Your task to perform on an android device: install app "Google News" Image 0: 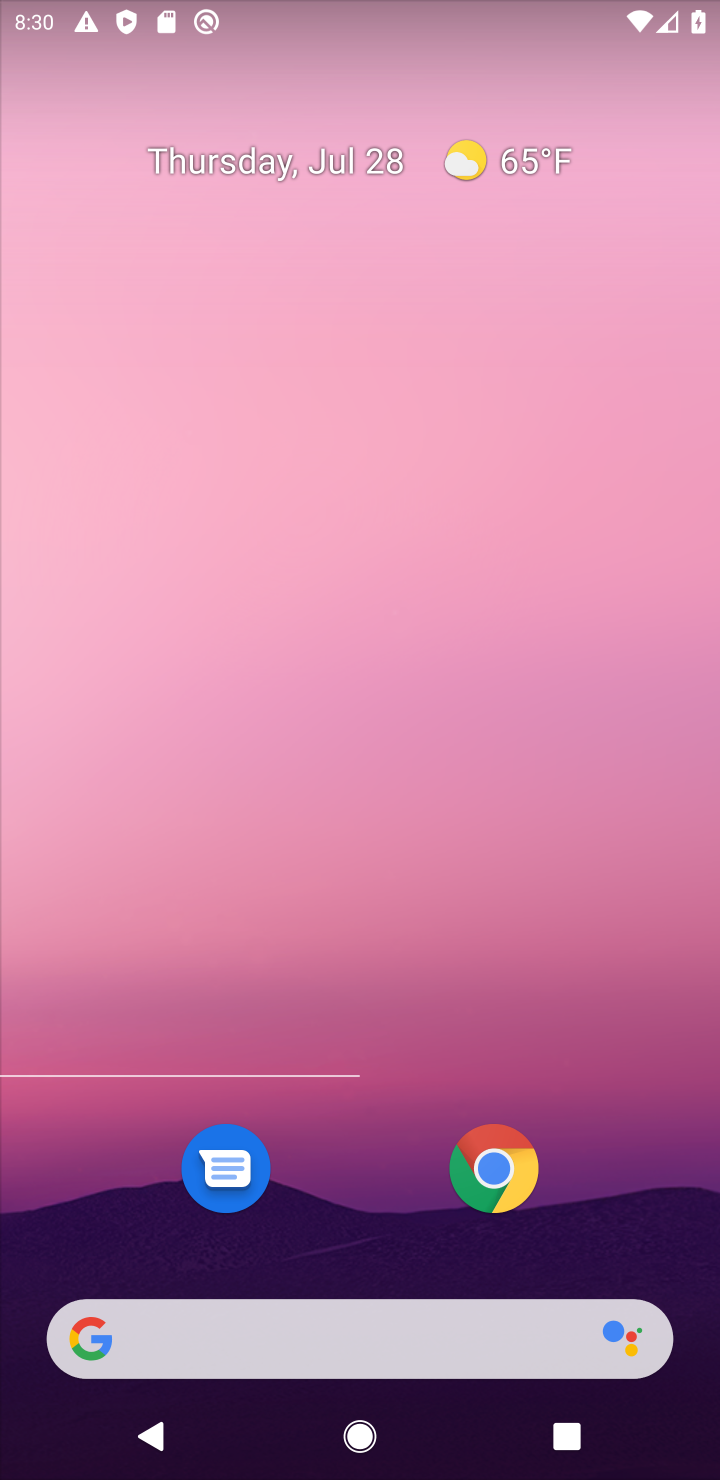
Step 0: press home button
Your task to perform on an android device: install app "Google News" Image 1: 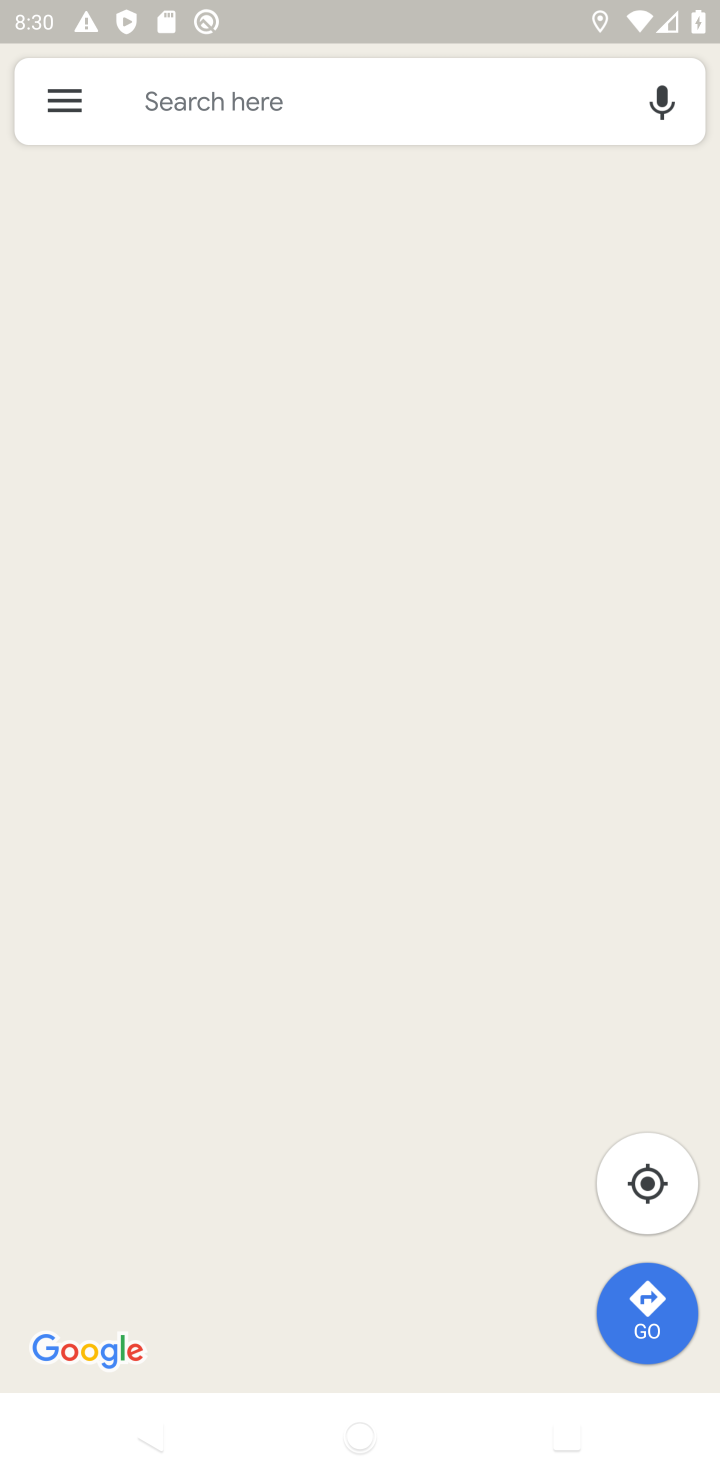
Step 1: drag from (375, 1047) to (526, 32)
Your task to perform on an android device: install app "Google News" Image 2: 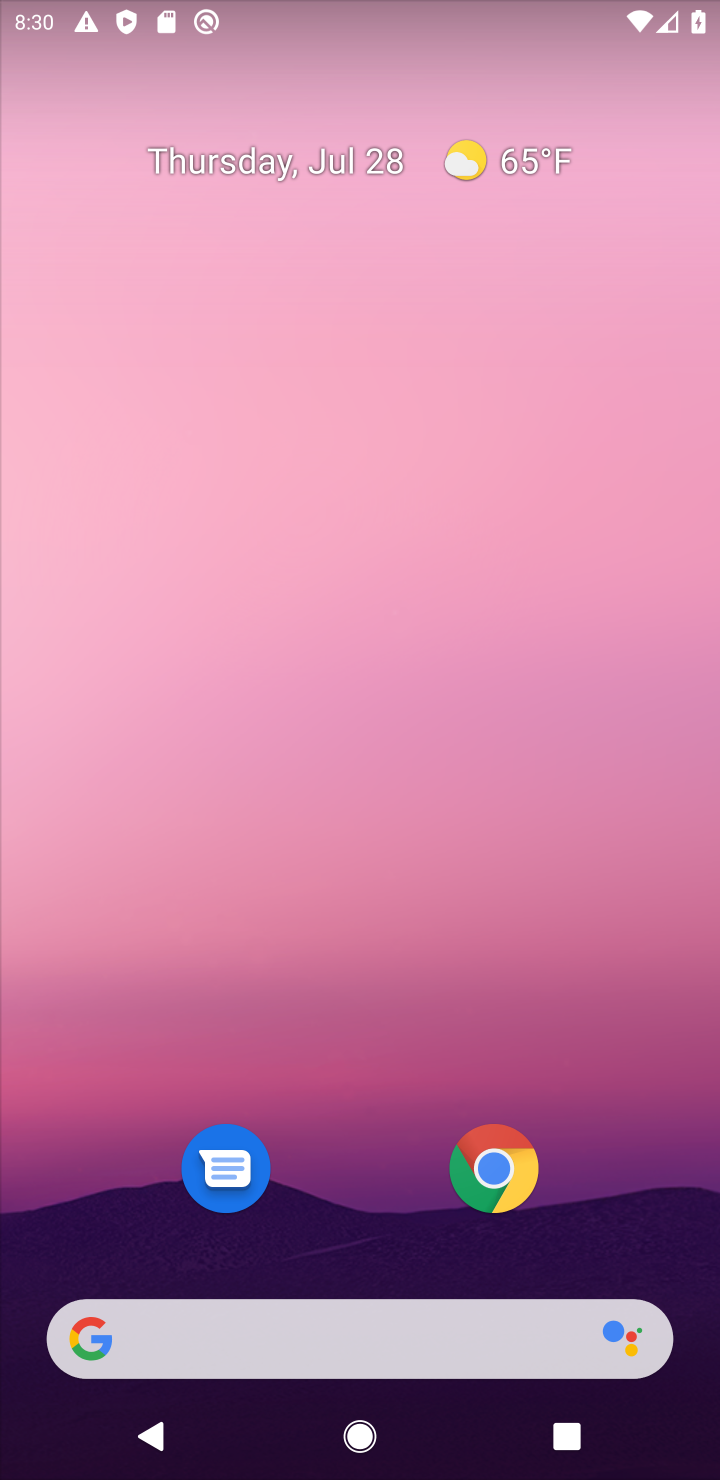
Step 2: drag from (448, 1209) to (501, 23)
Your task to perform on an android device: install app "Google News" Image 3: 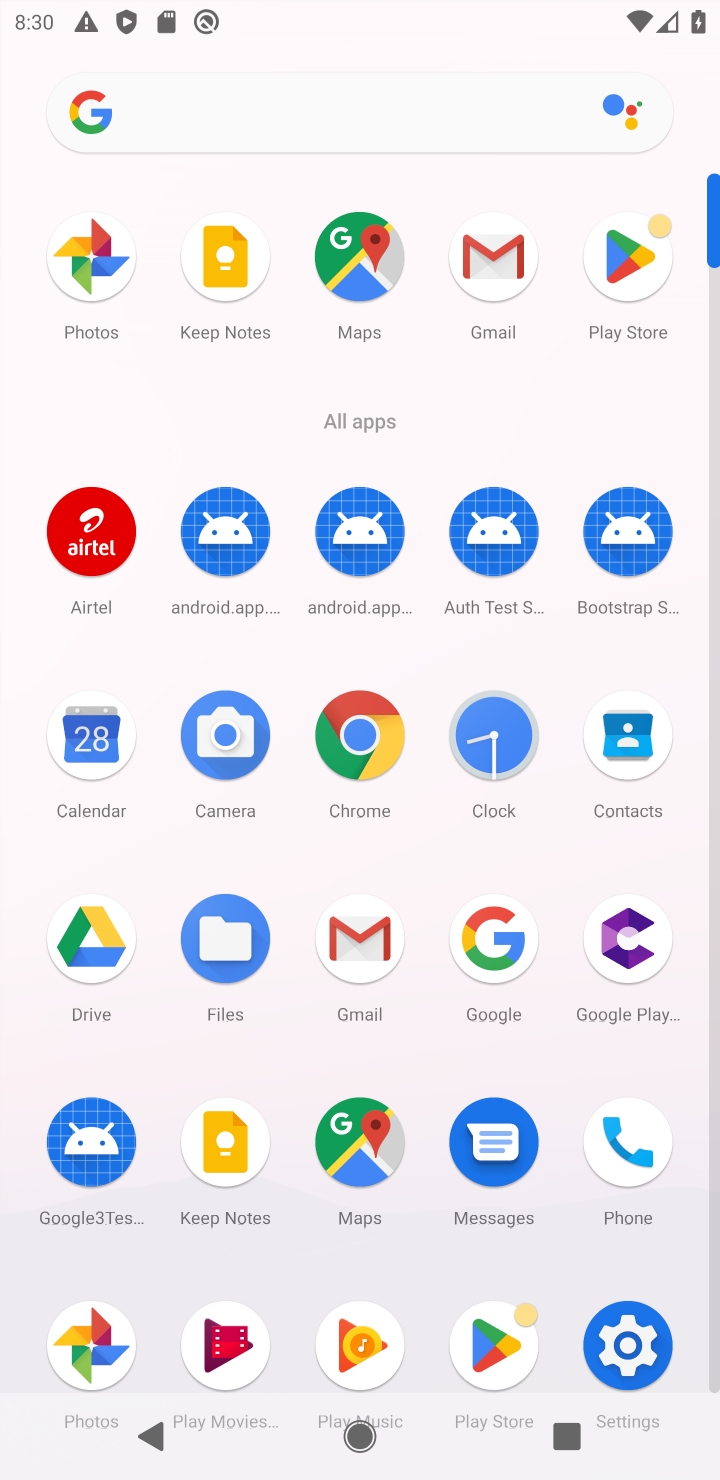
Step 3: click (604, 259)
Your task to perform on an android device: install app "Google News" Image 4: 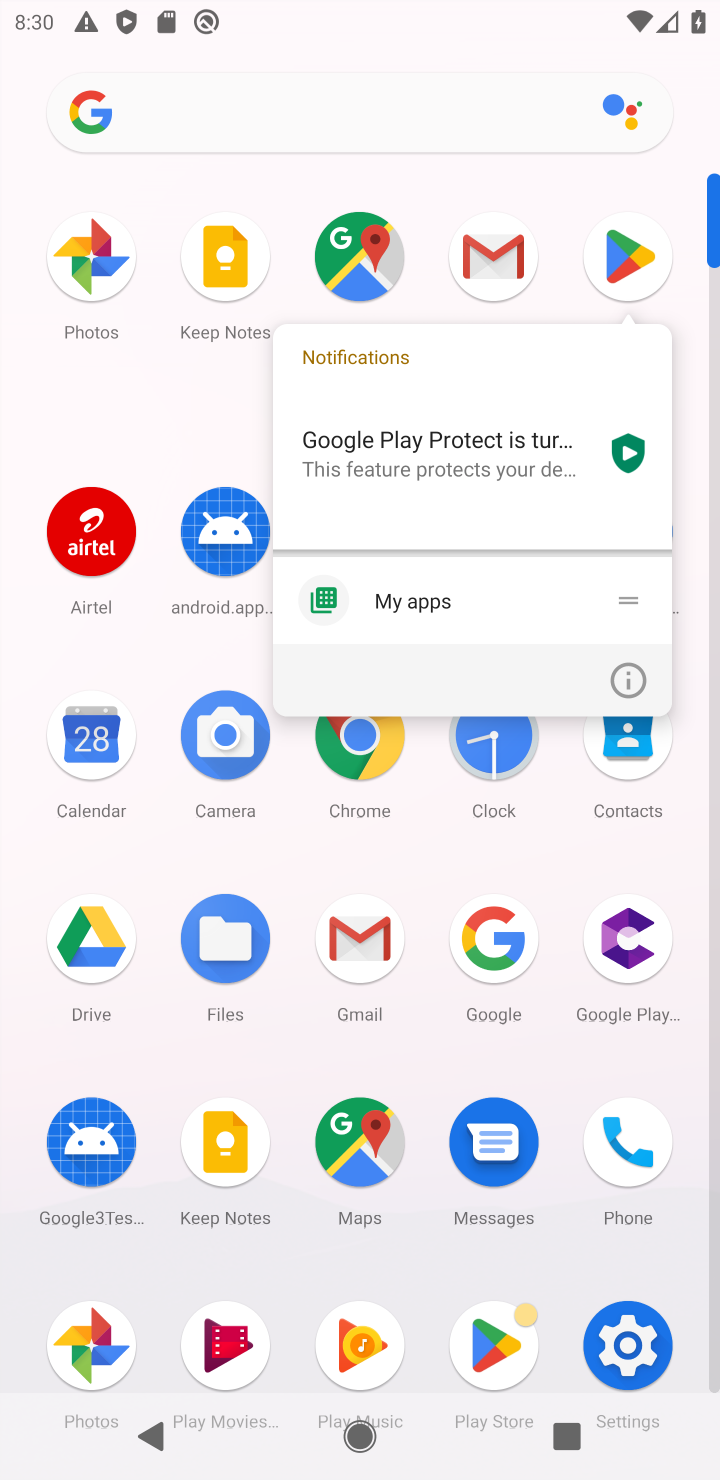
Step 4: click (604, 259)
Your task to perform on an android device: install app "Google News" Image 5: 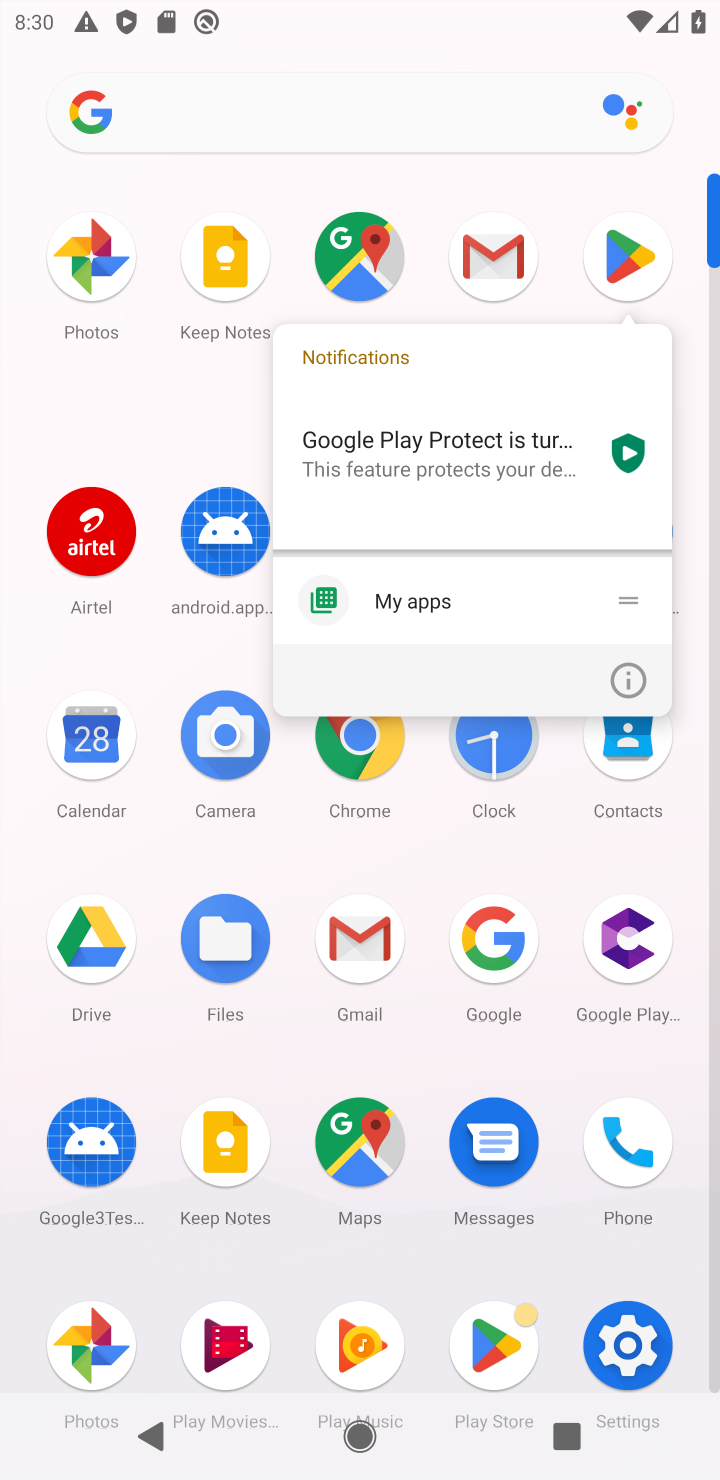
Step 5: click (624, 253)
Your task to perform on an android device: install app "Google News" Image 6: 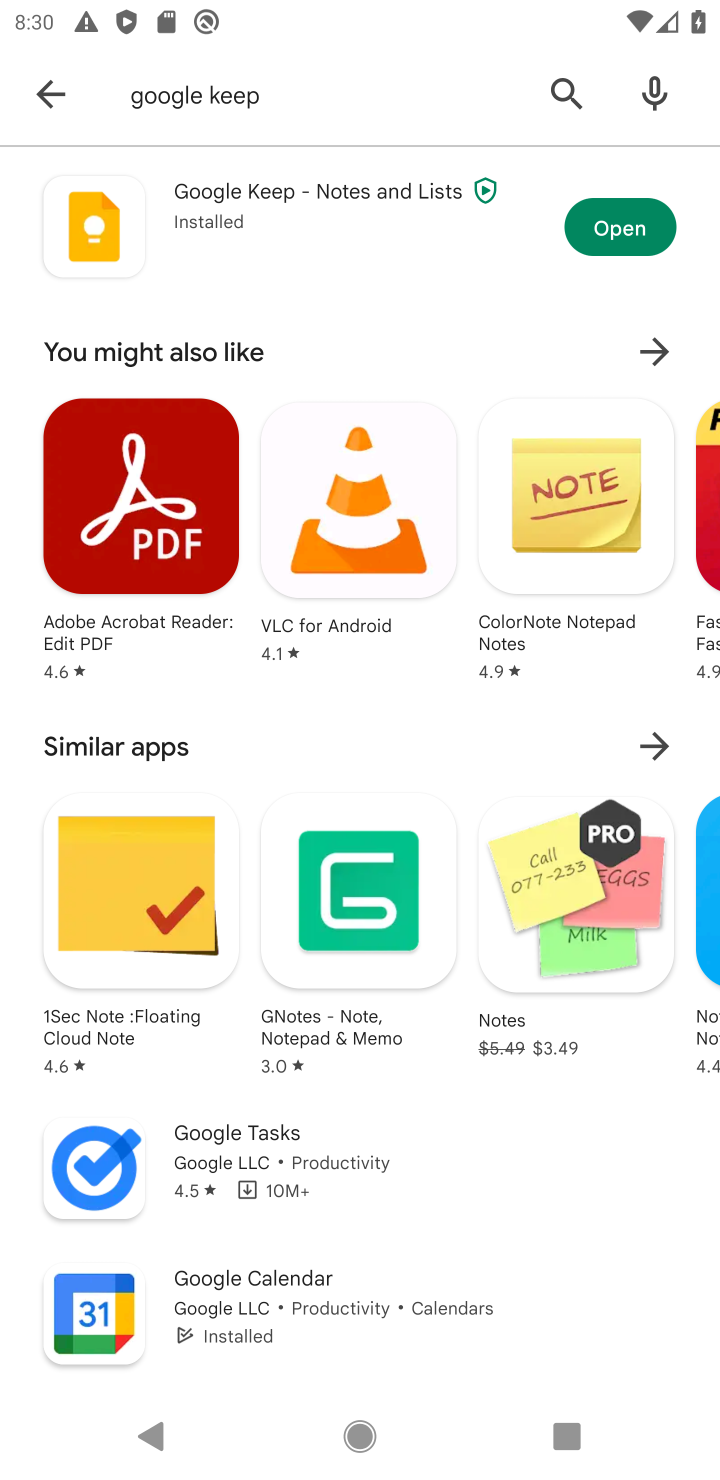
Step 6: click (557, 72)
Your task to perform on an android device: install app "Google News" Image 7: 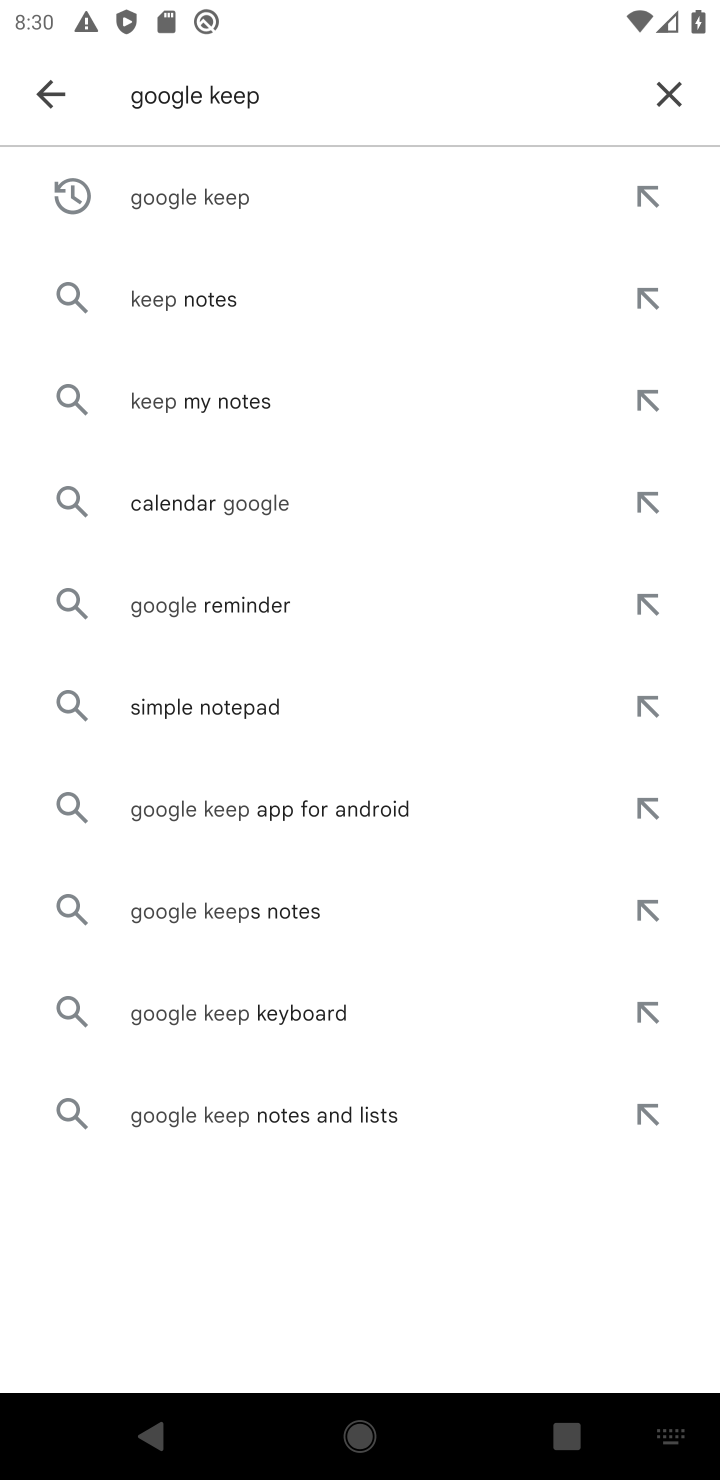
Step 7: click (656, 85)
Your task to perform on an android device: install app "Google News" Image 8: 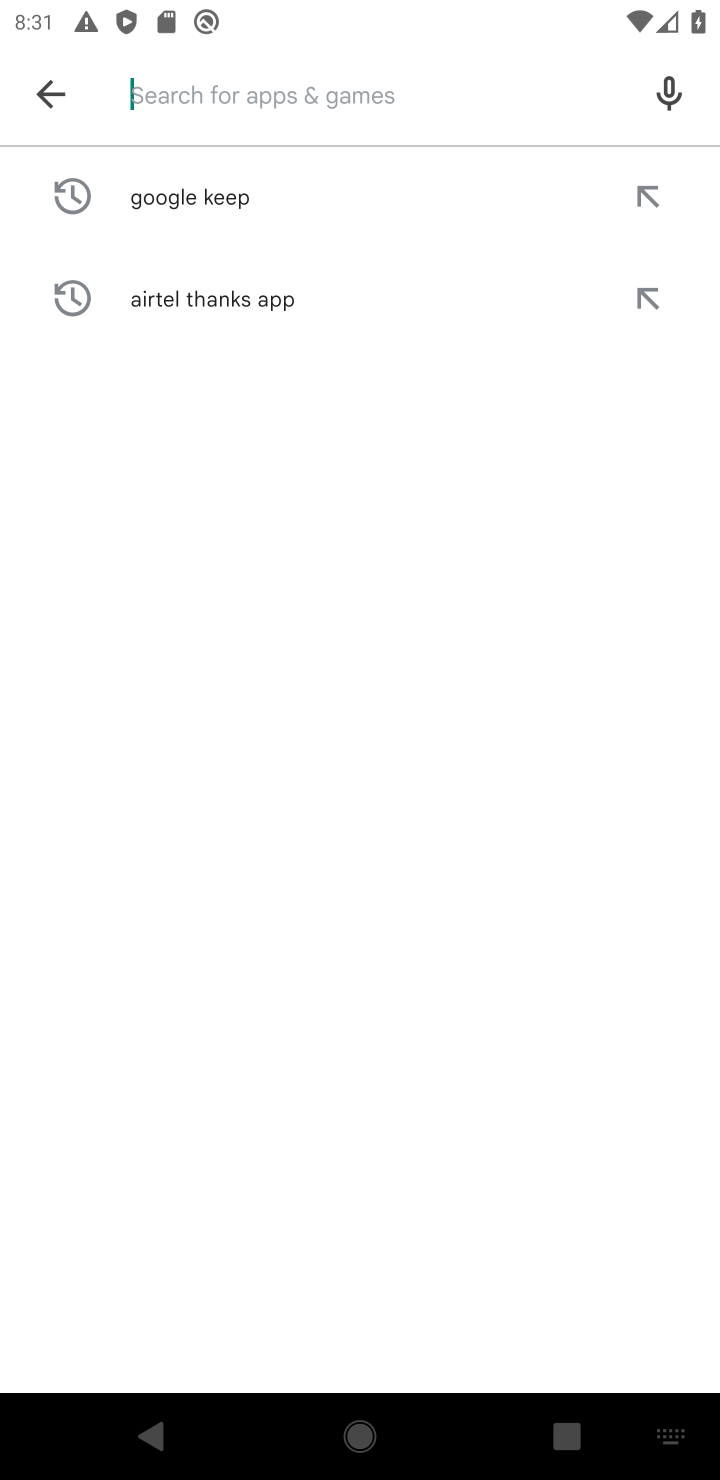
Step 8: type "google news"
Your task to perform on an android device: install app "Google News" Image 9: 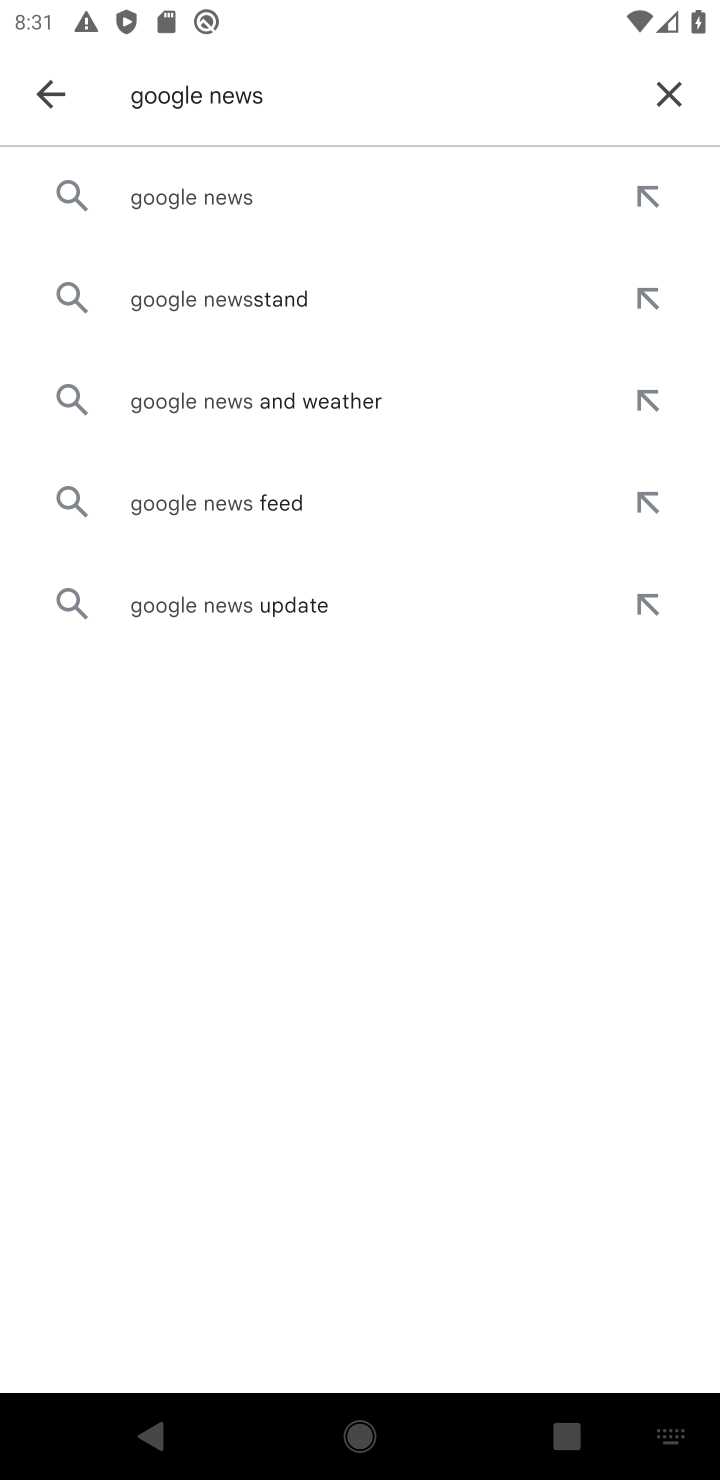
Step 9: click (295, 195)
Your task to perform on an android device: install app "Google News" Image 10: 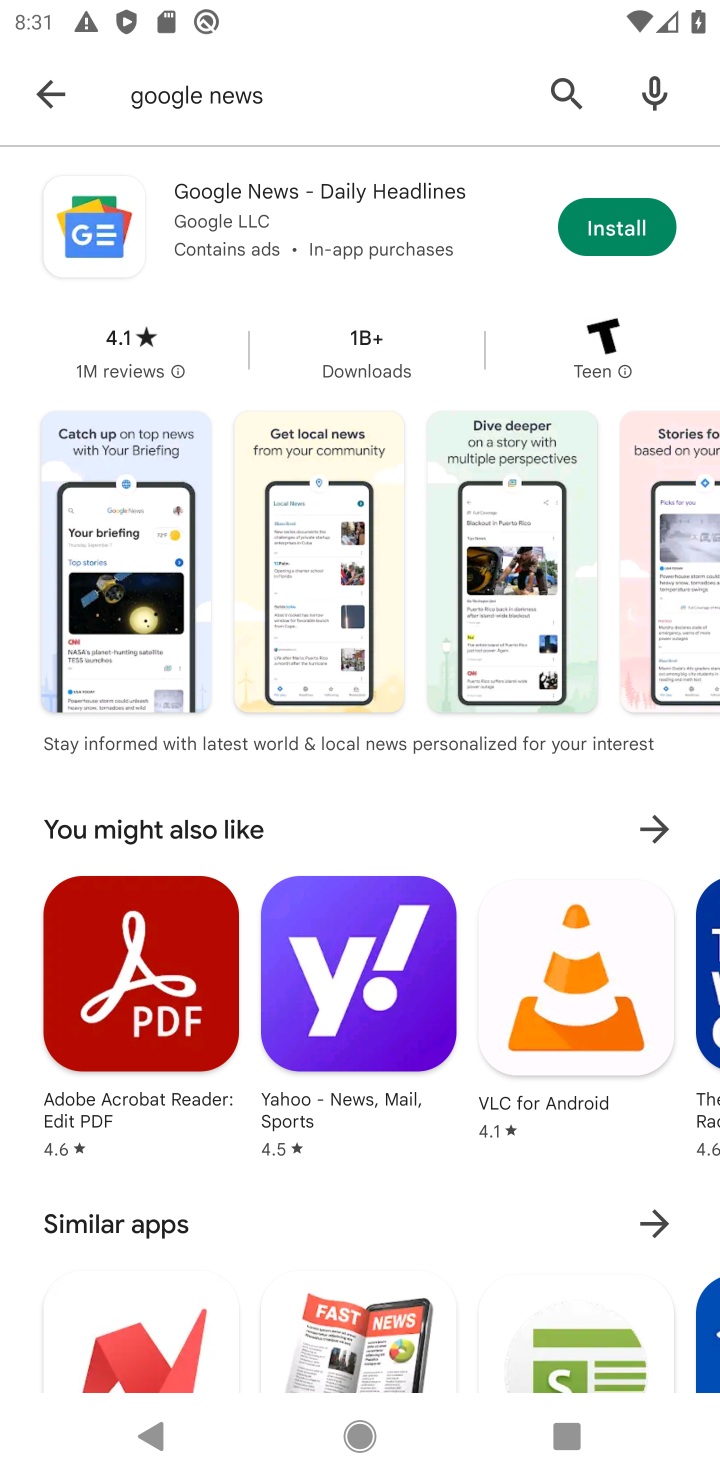
Step 10: click (593, 238)
Your task to perform on an android device: install app "Google News" Image 11: 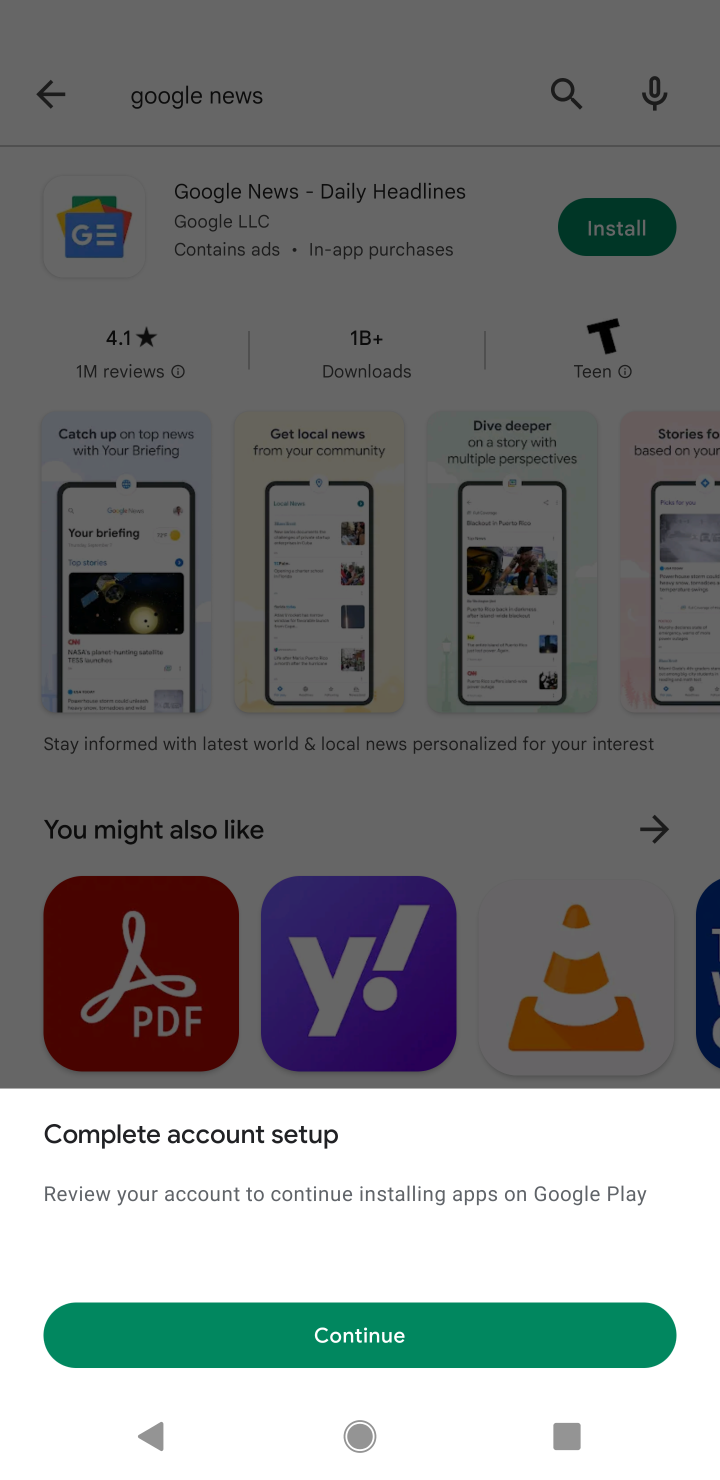
Step 11: click (361, 1321)
Your task to perform on an android device: install app "Google News" Image 12: 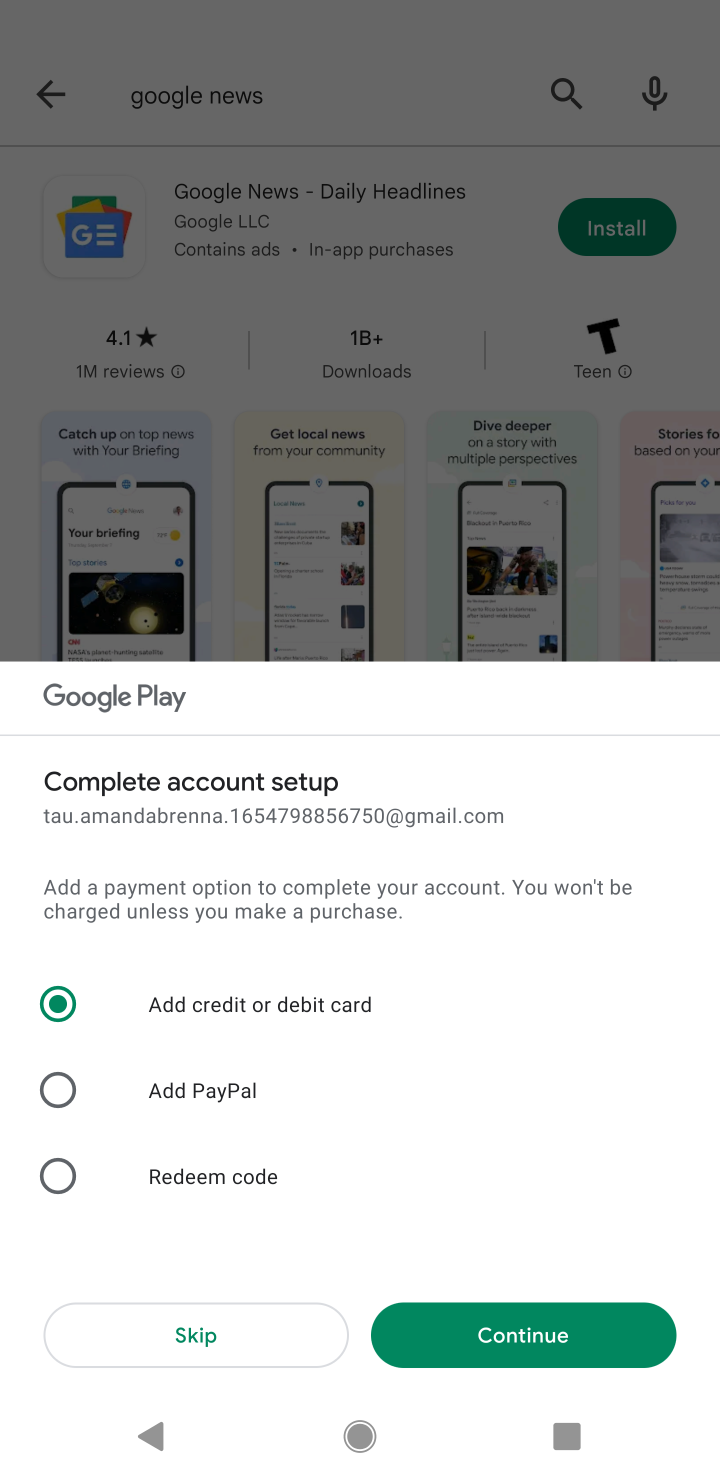
Step 12: click (202, 1320)
Your task to perform on an android device: install app "Google News" Image 13: 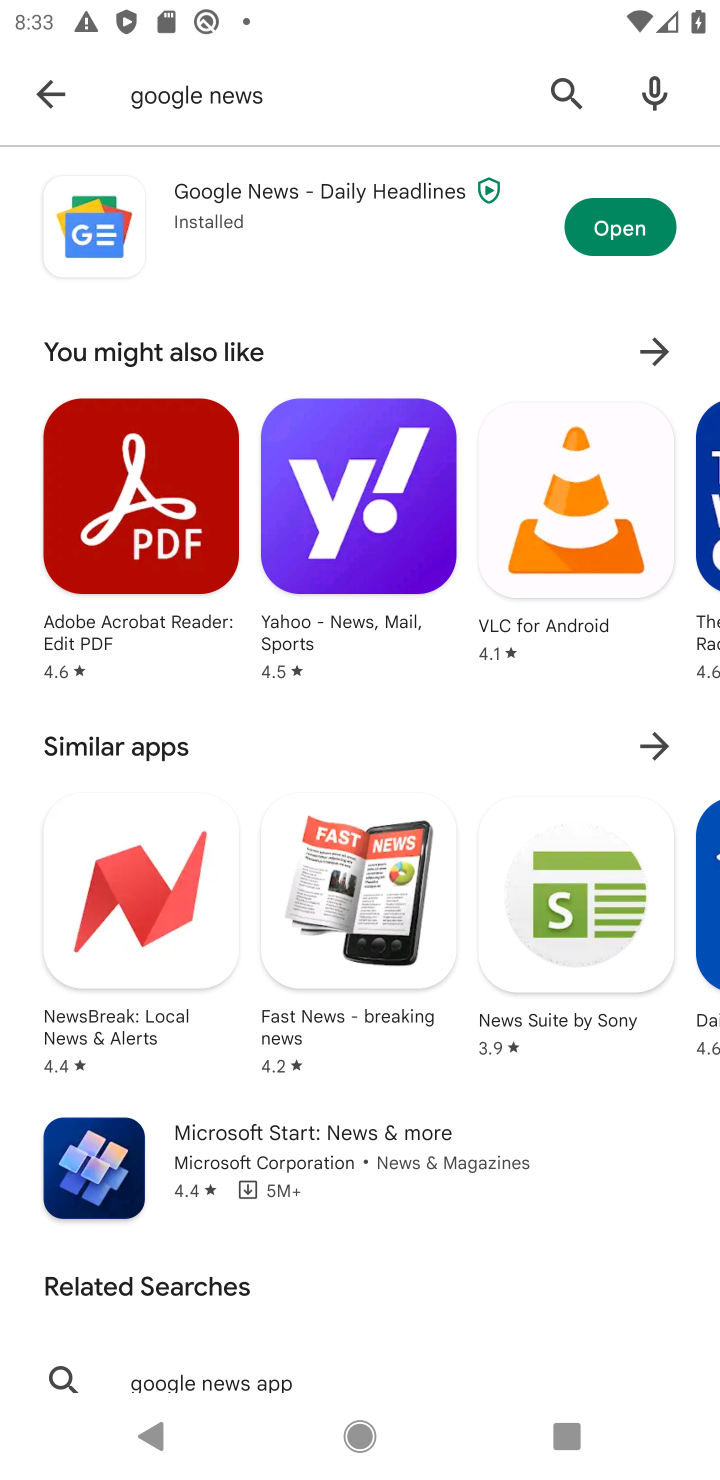
Step 13: task complete